Your task to perform on an android device: open wifi settings Image 0: 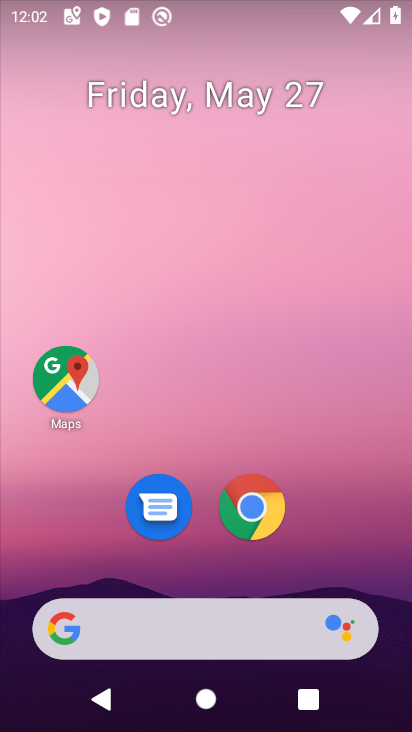
Step 0: drag from (330, 539) to (273, 36)
Your task to perform on an android device: open wifi settings Image 1: 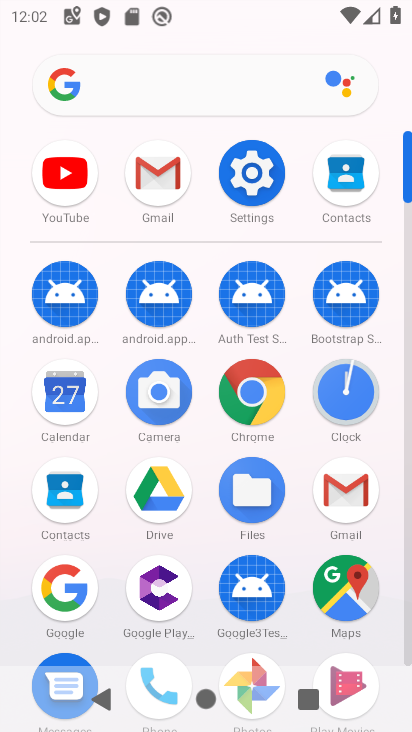
Step 1: click (241, 150)
Your task to perform on an android device: open wifi settings Image 2: 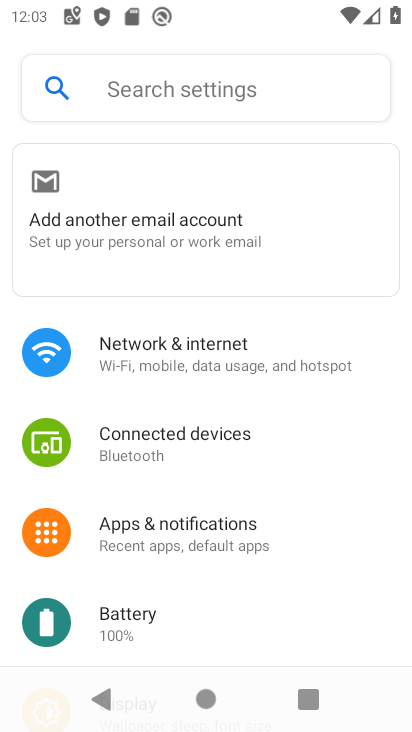
Step 2: click (181, 351)
Your task to perform on an android device: open wifi settings Image 3: 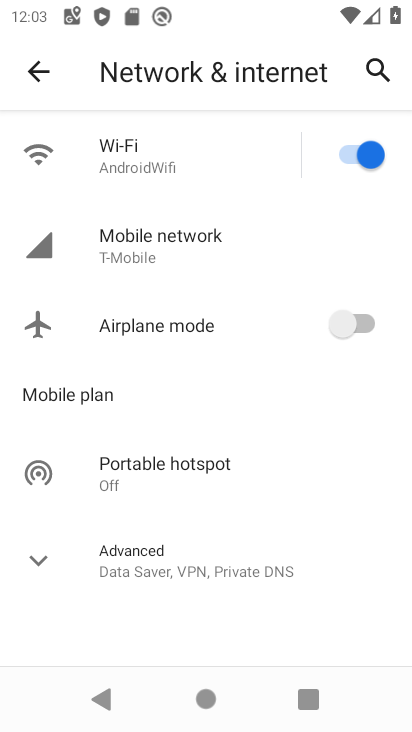
Step 3: click (155, 167)
Your task to perform on an android device: open wifi settings Image 4: 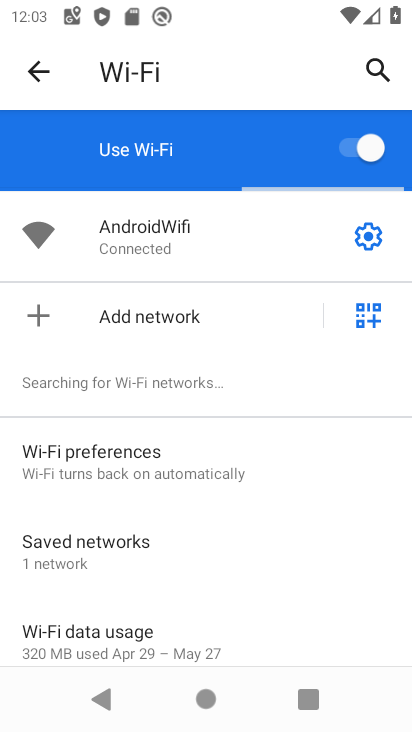
Step 4: click (361, 245)
Your task to perform on an android device: open wifi settings Image 5: 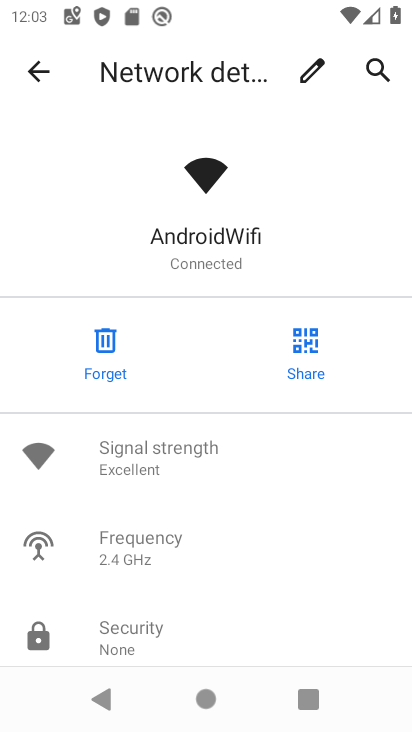
Step 5: task complete